Your task to perform on an android device: see creations saved in the google photos Image 0: 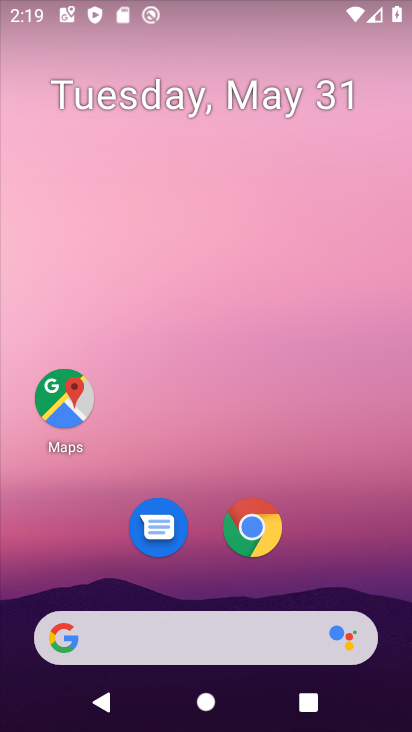
Step 0: drag from (356, 533) to (302, 132)
Your task to perform on an android device: see creations saved in the google photos Image 1: 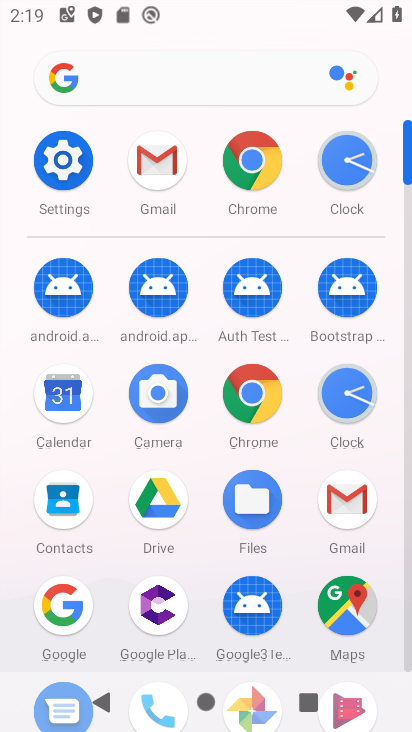
Step 1: drag from (397, 454) to (352, 119)
Your task to perform on an android device: see creations saved in the google photos Image 2: 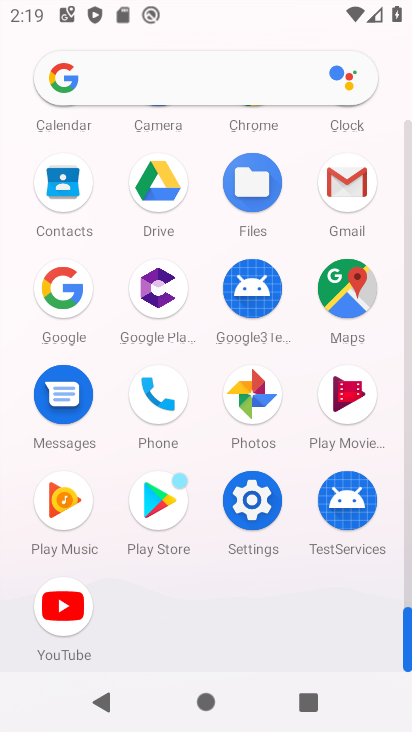
Step 2: click (238, 394)
Your task to perform on an android device: see creations saved in the google photos Image 3: 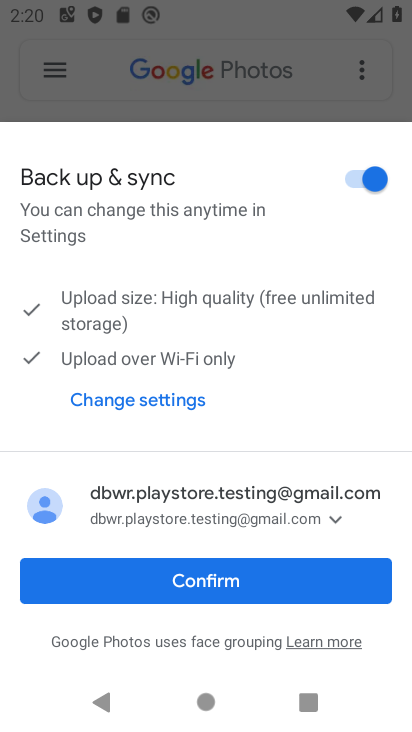
Step 3: click (215, 577)
Your task to perform on an android device: see creations saved in the google photos Image 4: 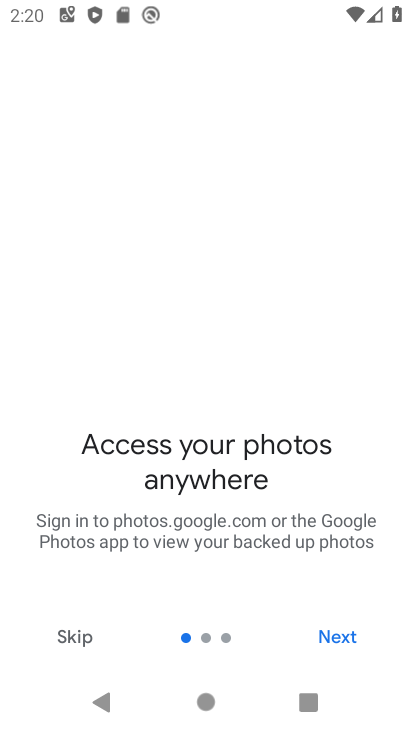
Step 4: click (326, 628)
Your task to perform on an android device: see creations saved in the google photos Image 5: 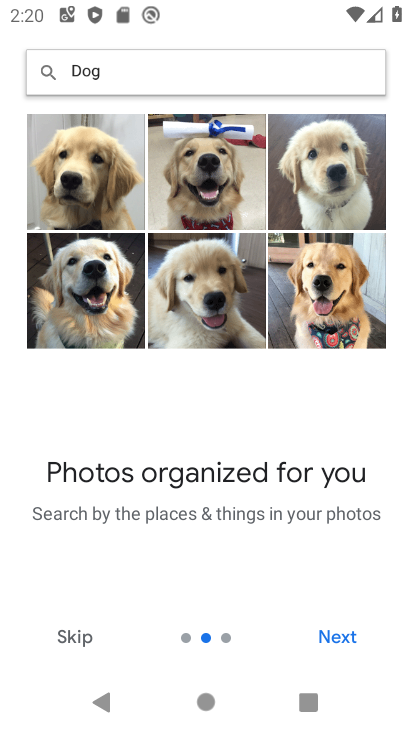
Step 5: click (336, 627)
Your task to perform on an android device: see creations saved in the google photos Image 6: 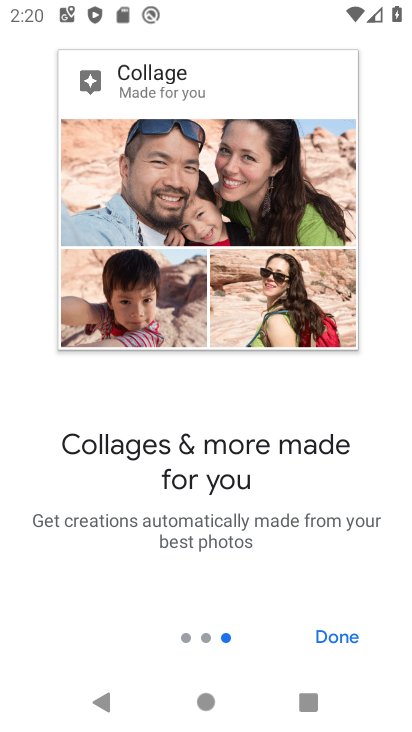
Step 6: click (335, 626)
Your task to perform on an android device: see creations saved in the google photos Image 7: 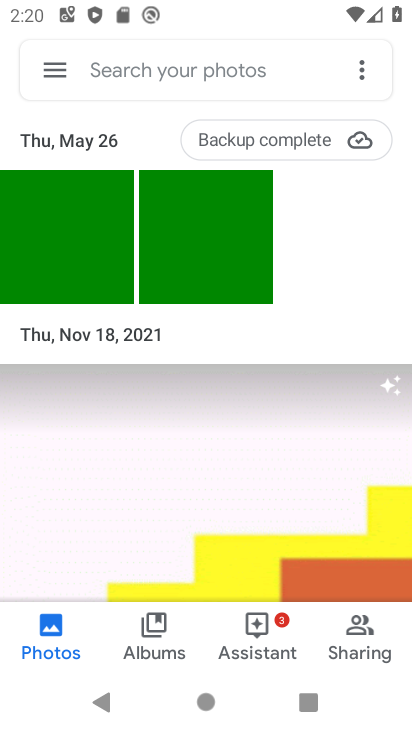
Step 7: click (145, 638)
Your task to perform on an android device: see creations saved in the google photos Image 8: 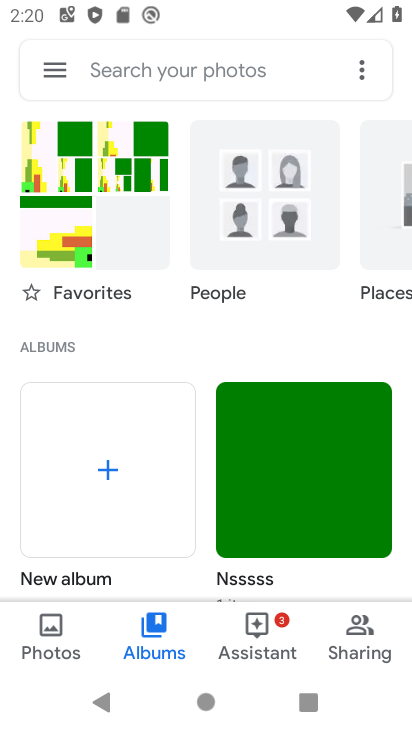
Step 8: click (207, 179)
Your task to perform on an android device: see creations saved in the google photos Image 9: 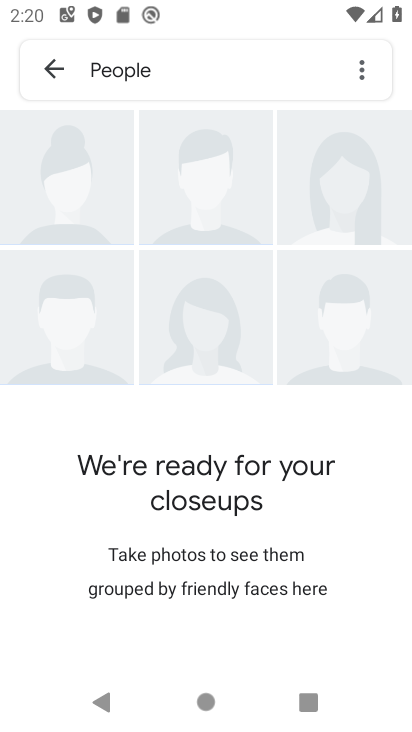
Step 9: task complete